Your task to perform on an android device: Add "apple airpods" to the cart on walmart Image 0: 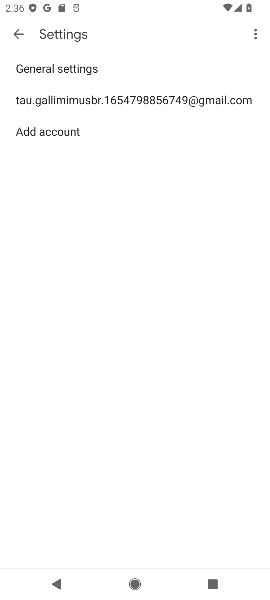
Step 0: press home button
Your task to perform on an android device: Add "apple airpods" to the cart on walmart Image 1: 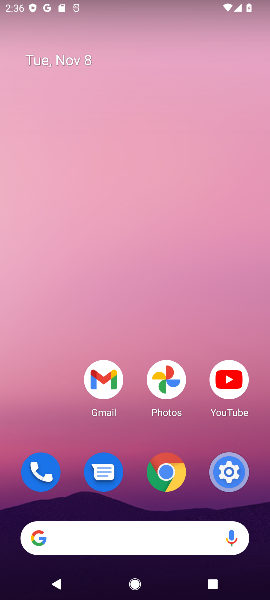
Step 1: click (175, 544)
Your task to perform on an android device: Add "apple airpods" to the cart on walmart Image 2: 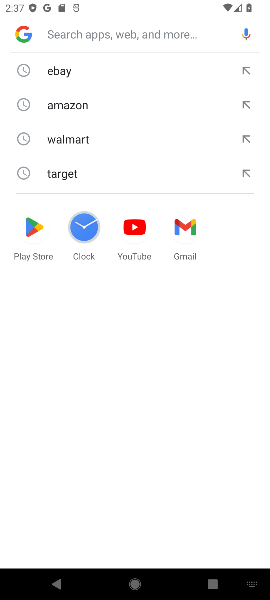
Step 2: click (121, 142)
Your task to perform on an android device: Add "apple airpods" to the cart on walmart Image 3: 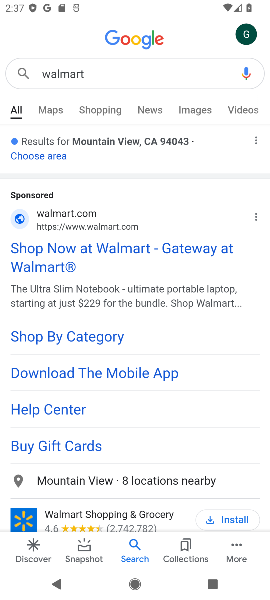
Step 3: click (45, 265)
Your task to perform on an android device: Add "apple airpods" to the cart on walmart Image 4: 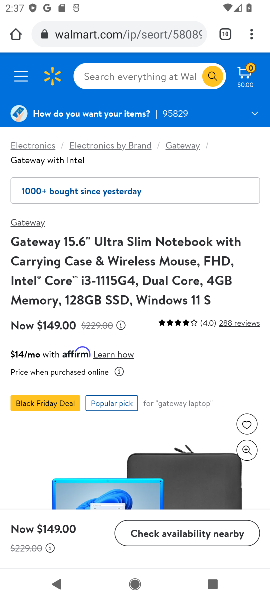
Step 4: task complete